Your task to perform on an android device: manage bookmarks in the chrome app Image 0: 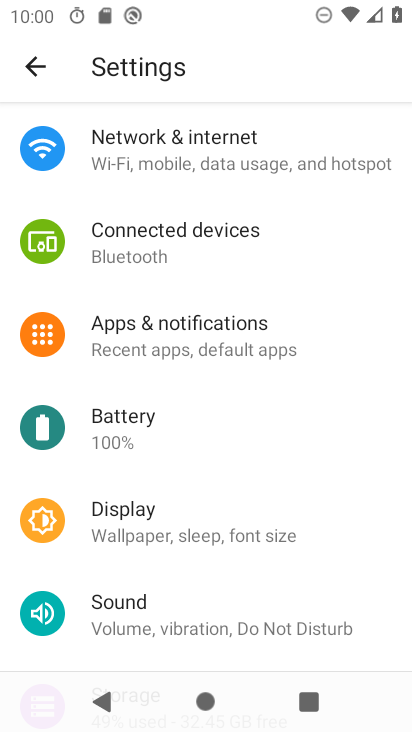
Step 0: press home button
Your task to perform on an android device: manage bookmarks in the chrome app Image 1: 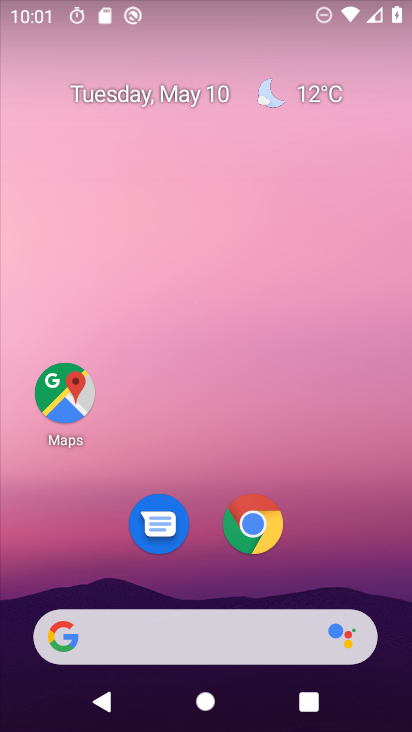
Step 1: click (262, 536)
Your task to perform on an android device: manage bookmarks in the chrome app Image 2: 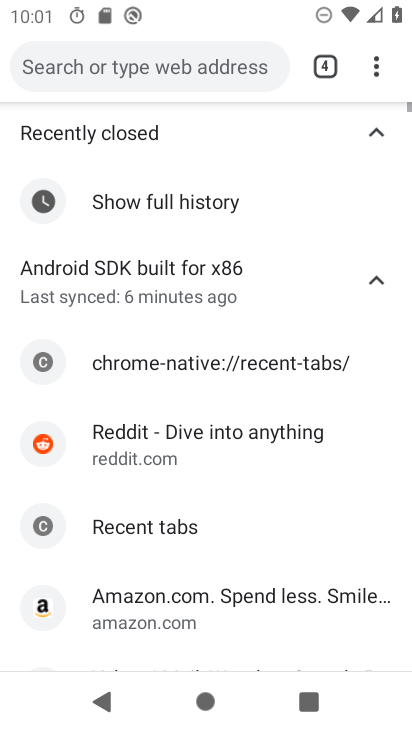
Step 2: click (262, 536)
Your task to perform on an android device: manage bookmarks in the chrome app Image 3: 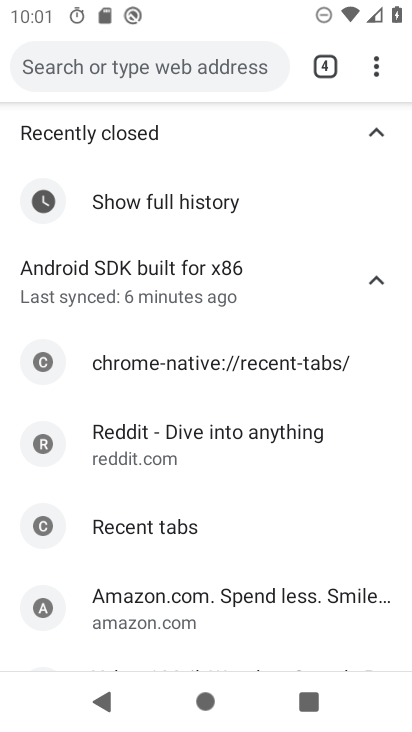
Step 3: click (375, 62)
Your task to perform on an android device: manage bookmarks in the chrome app Image 4: 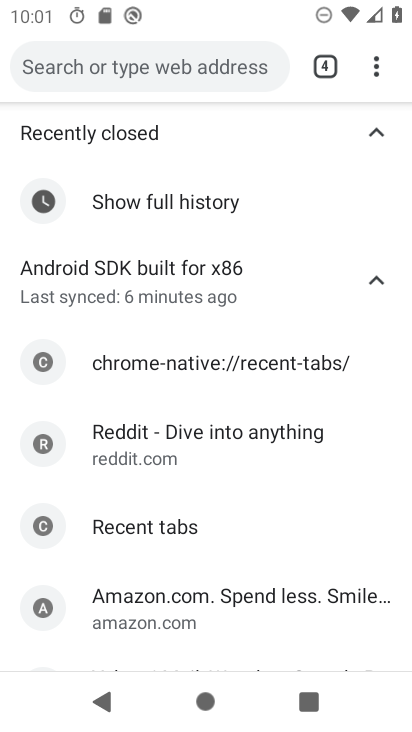
Step 4: click (375, 62)
Your task to perform on an android device: manage bookmarks in the chrome app Image 5: 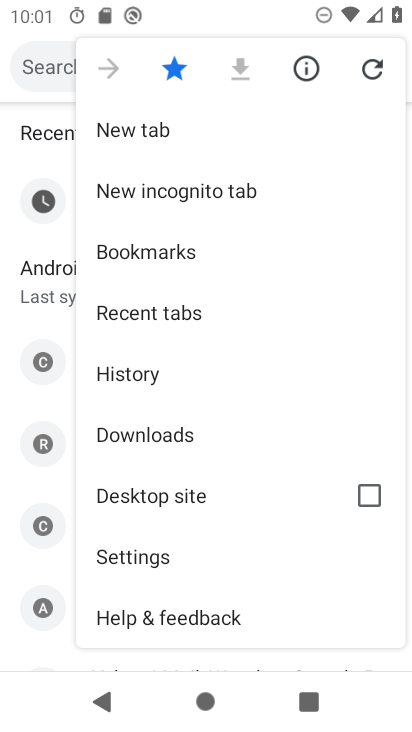
Step 5: click (186, 251)
Your task to perform on an android device: manage bookmarks in the chrome app Image 6: 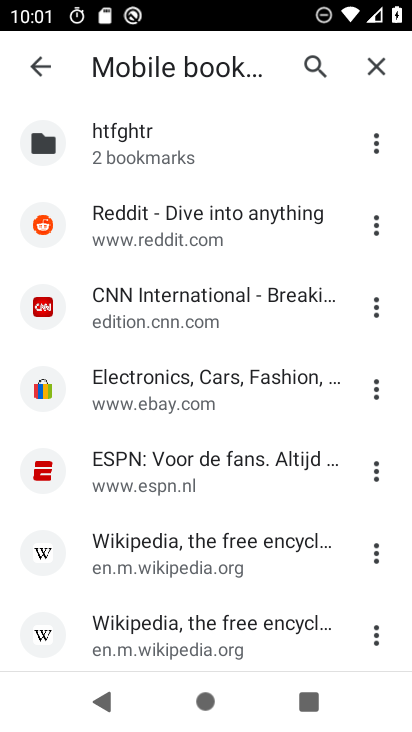
Step 6: click (377, 230)
Your task to perform on an android device: manage bookmarks in the chrome app Image 7: 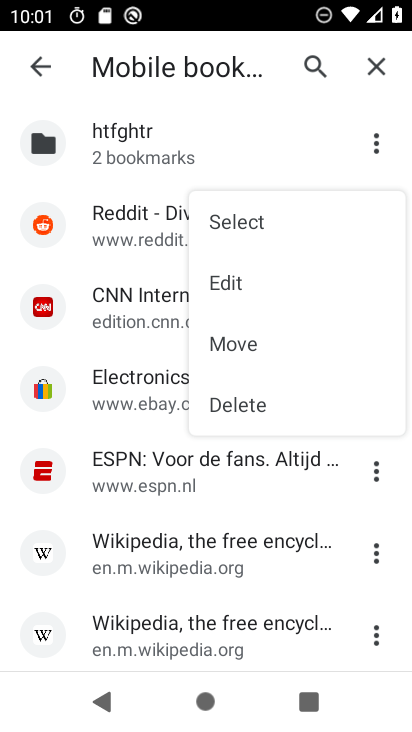
Step 7: click (283, 278)
Your task to perform on an android device: manage bookmarks in the chrome app Image 8: 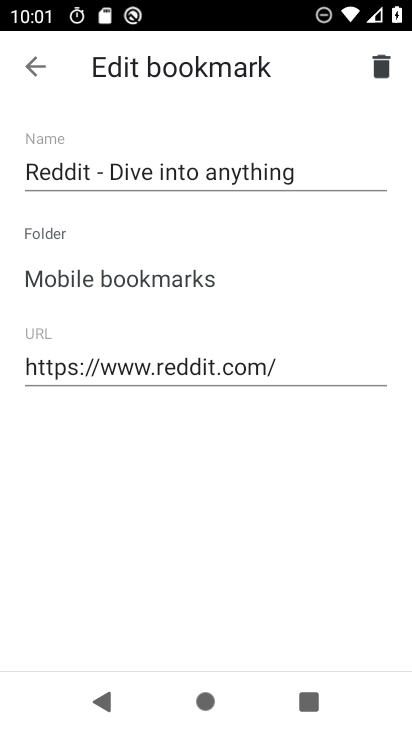
Step 8: click (32, 59)
Your task to perform on an android device: manage bookmarks in the chrome app Image 9: 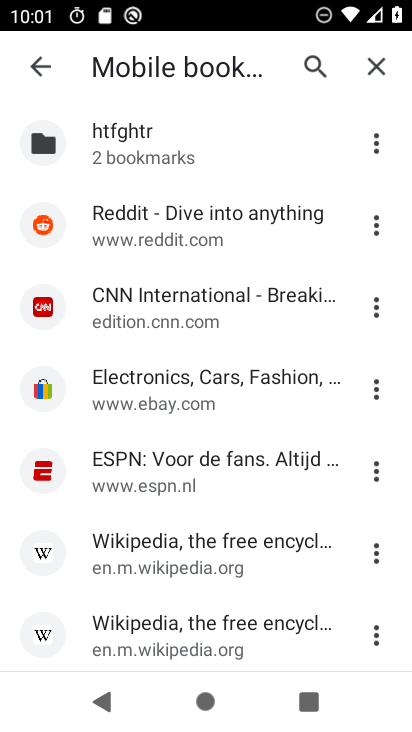
Step 9: task complete